Your task to perform on an android device: When is my next meeting? Image 0: 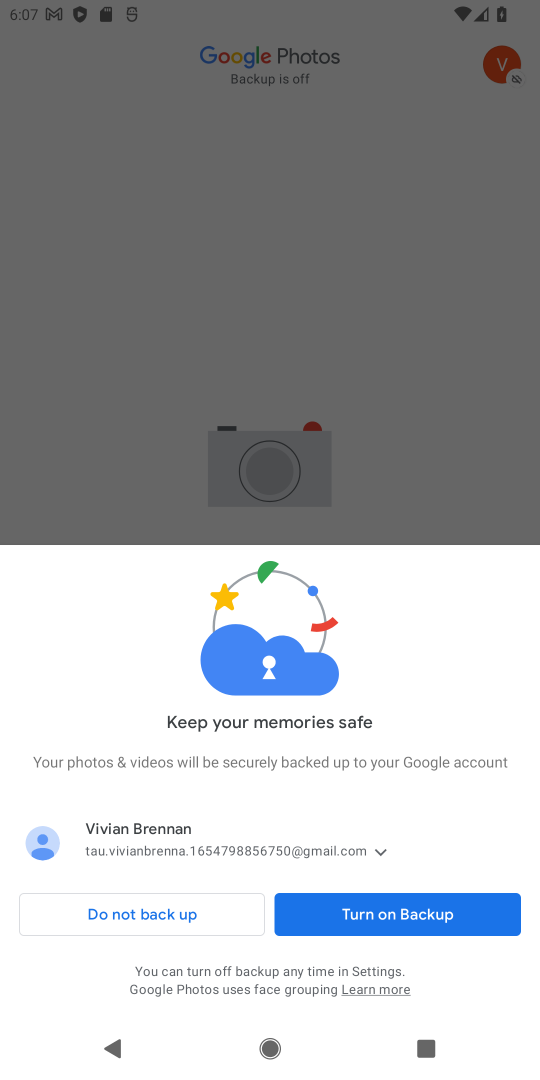
Step 0: press back button
Your task to perform on an android device: When is my next meeting? Image 1: 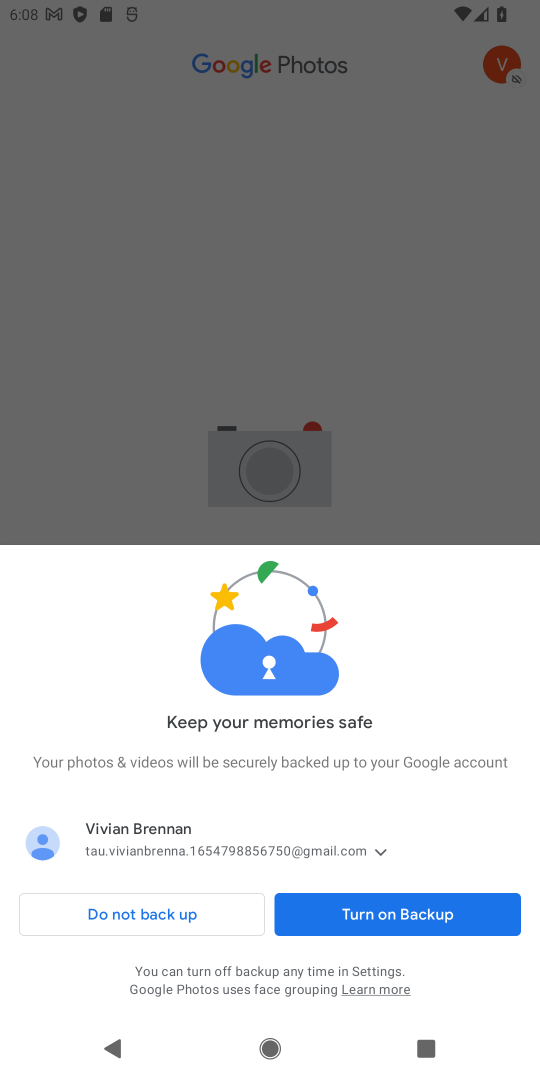
Step 1: press back button
Your task to perform on an android device: When is my next meeting? Image 2: 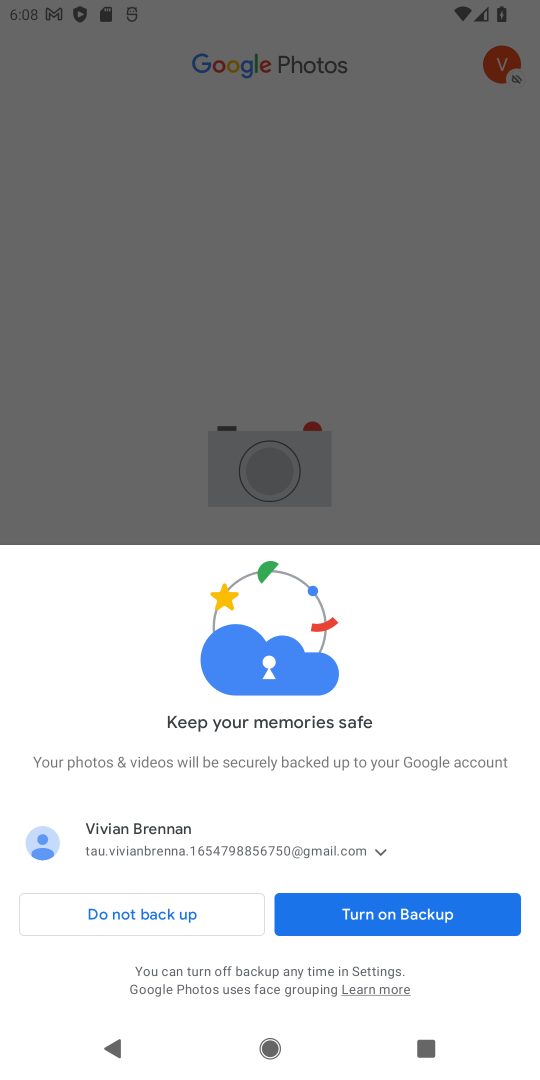
Step 2: press home button
Your task to perform on an android device: When is my next meeting? Image 3: 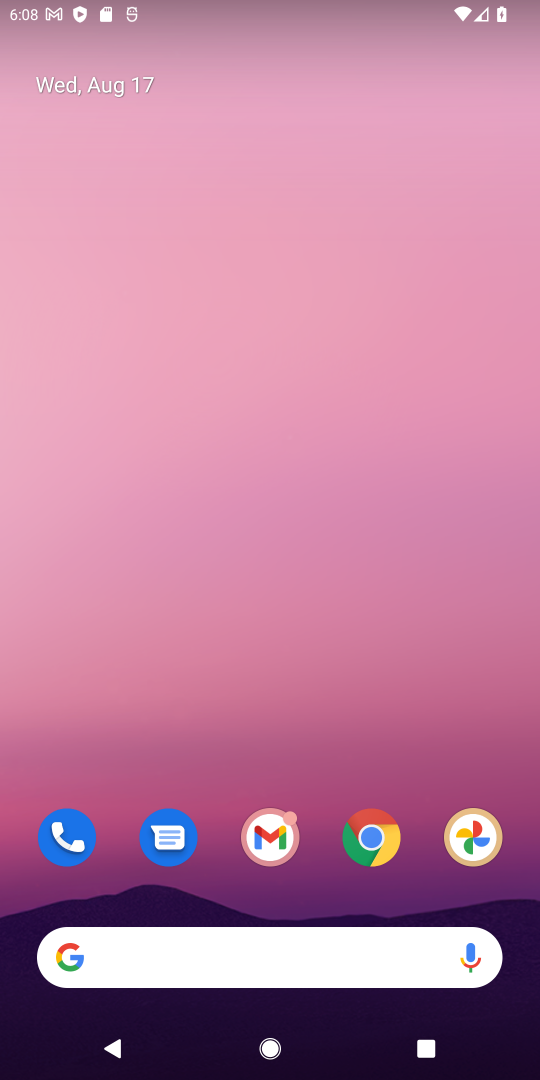
Step 3: click (229, 958)
Your task to perform on an android device: When is my next meeting? Image 4: 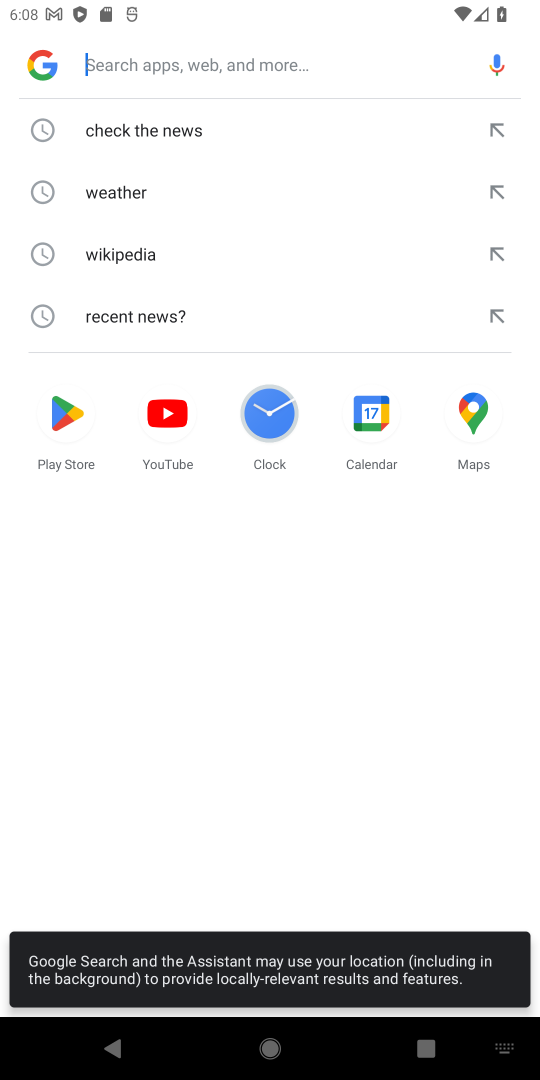
Step 4: press back button
Your task to perform on an android device: When is my next meeting? Image 5: 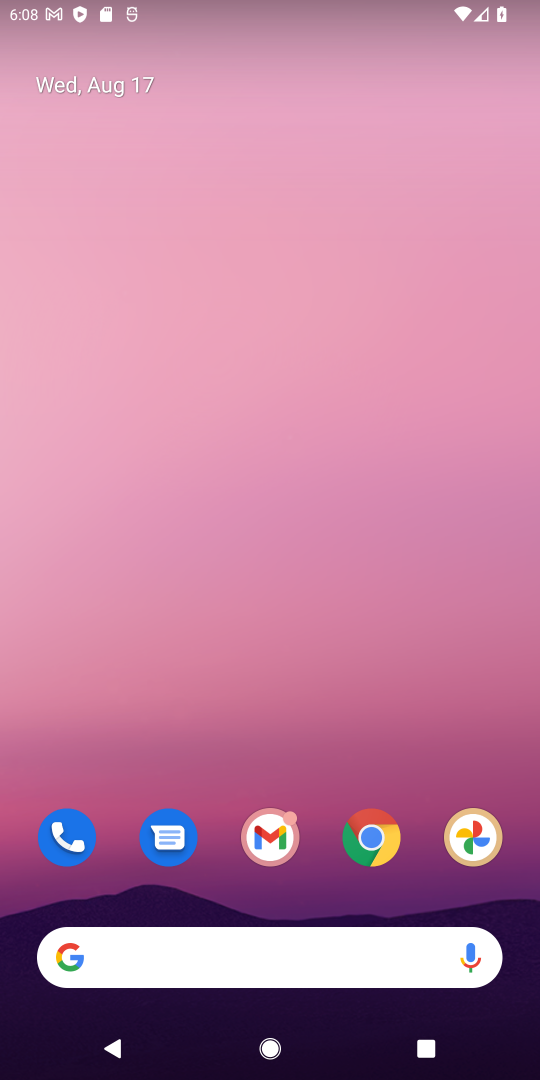
Step 5: drag from (278, 711) to (389, 11)
Your task to perform on an android device: When is my next meeting? Image 6: 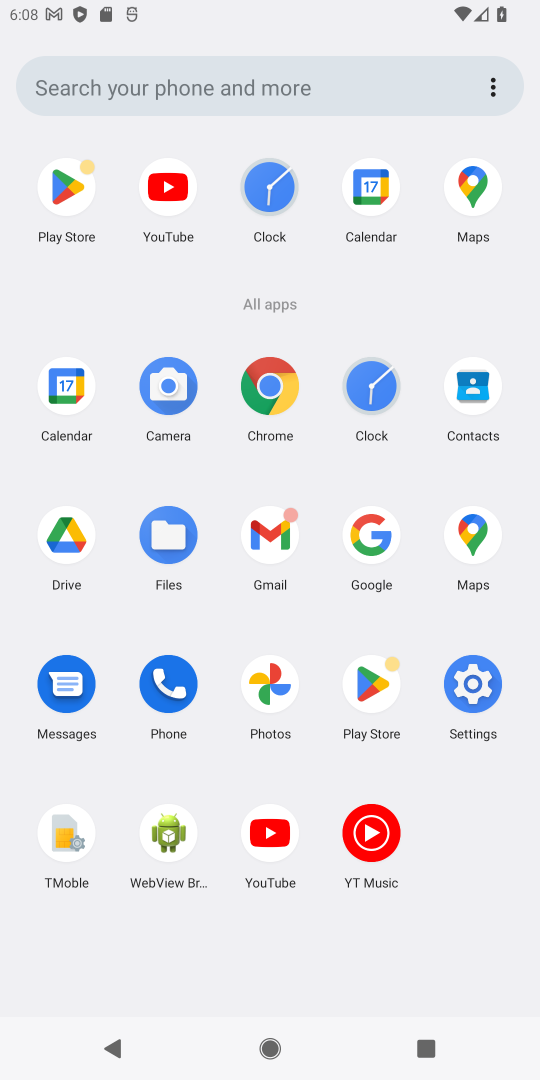
Step 6: click (53, 384)
Your task to perform on an android device: When is my next meeting? Image 7: 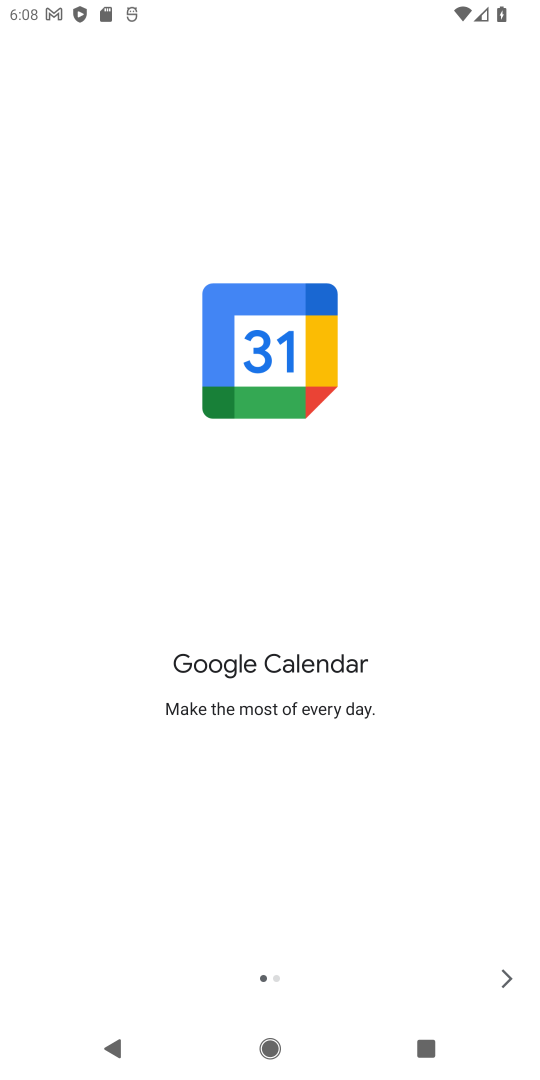
Step 7: click (494, 980)
Your task to perform on an android device: When is my next meeting? Image 8: 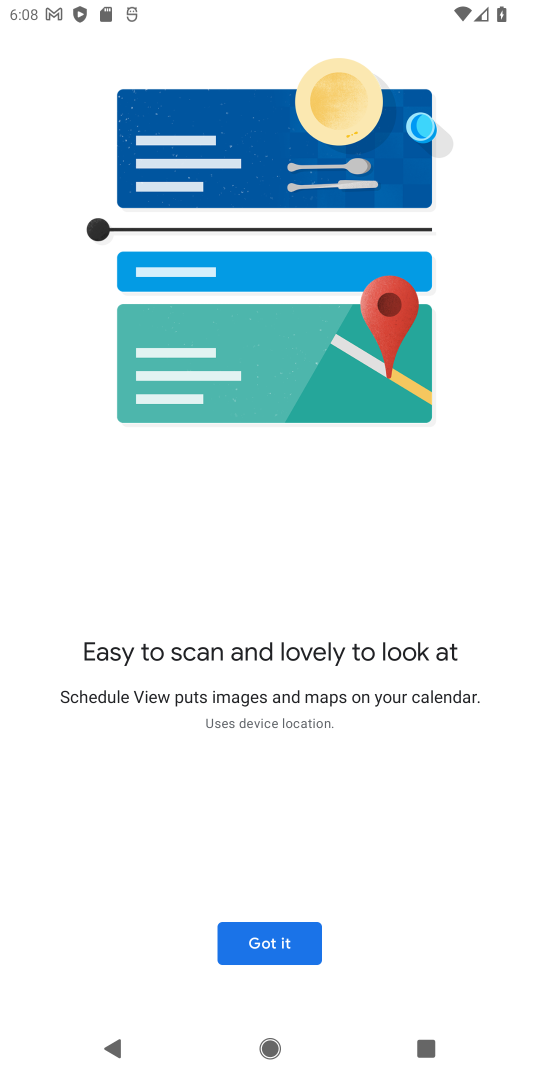
Step 8: click (278, 938)
Your task to perform on an android device: When is my next meeting? Image 9: 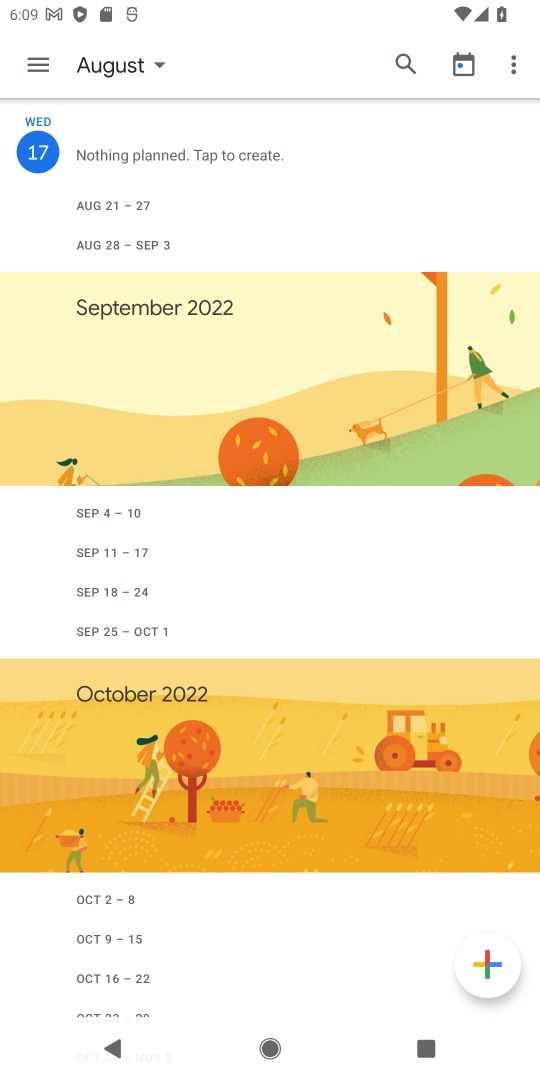
Step 9: task complete